Your task to perform on an android device: Is it going to rain today? Image 0: 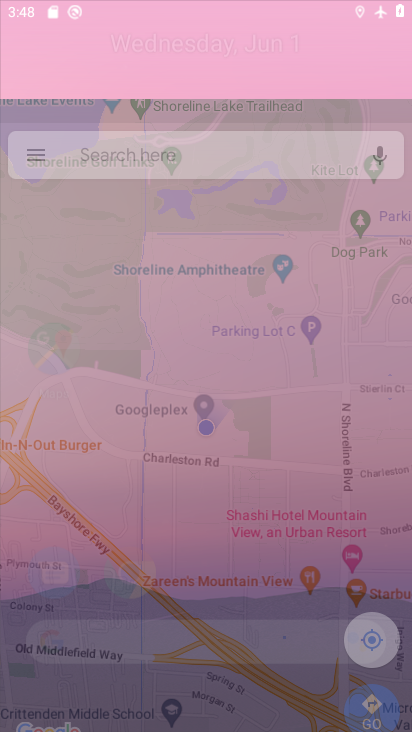
Step 0: click (133, 615)
Your task to perform on an android device: Is it going to rain today? Image 1: 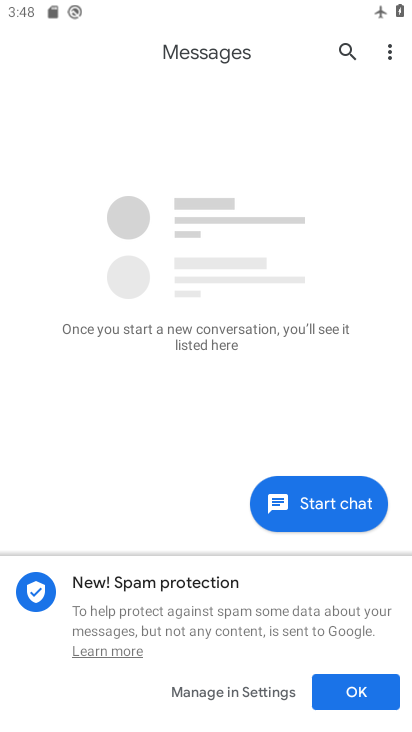
Step 1: press home button
Your task to perform on an android device: Is it going to rain today? Image 2: 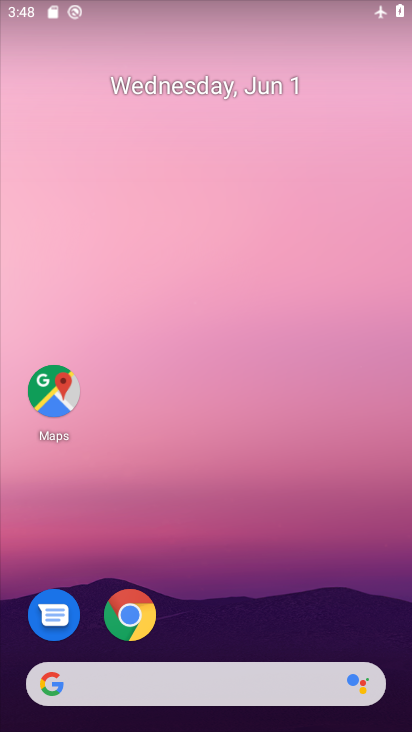
Step 2: drag from (238, 575) to (302, 89)
Your task to perform on an android device: Is it going to rain today? Image 3: 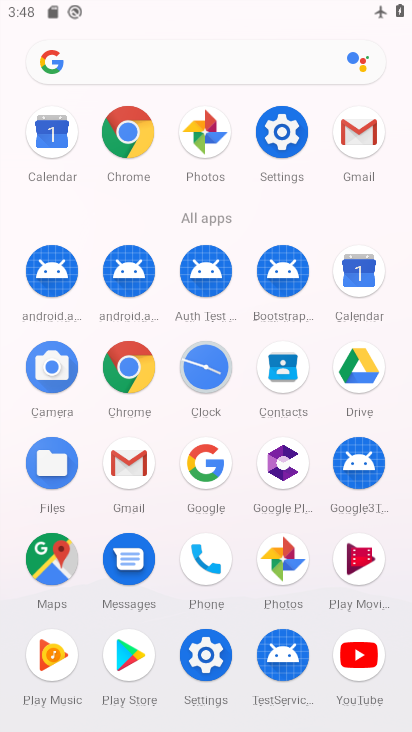
Step 3: click (127, 372)
Your task to perform on an android device: Is it going to rain today? Image 4: 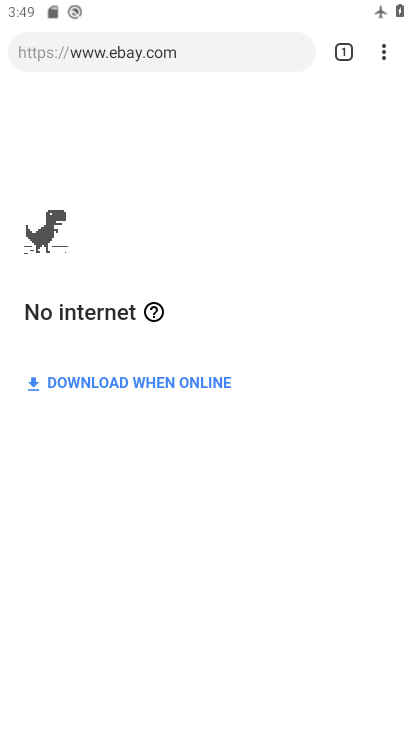
Step 4: click (226, 48)
Your task to perform on an android device: Is it going to rain today? Image 5: 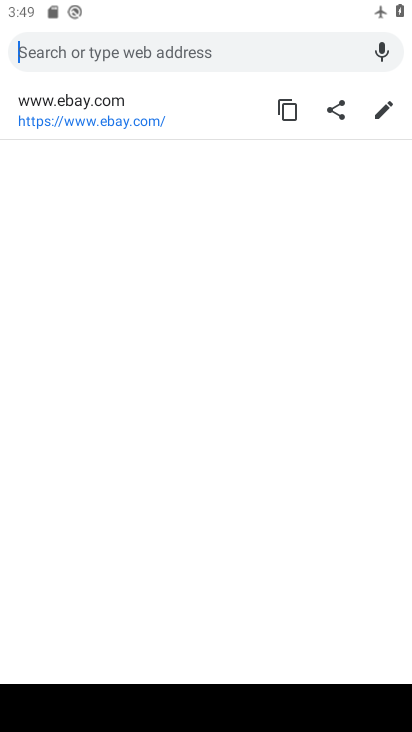
Step 5: type "weather"
Your task to perform on an android device: Is it going to rain today? Image 6: 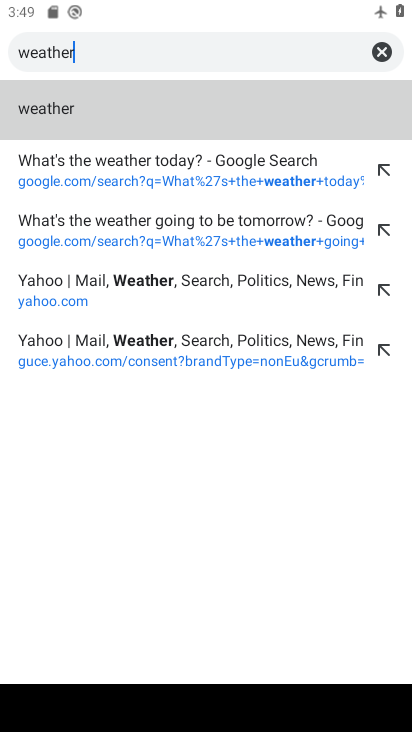
Step 6: click (73, 105)
Your task to perform on an android device: Is it going to rain today? Image 7: 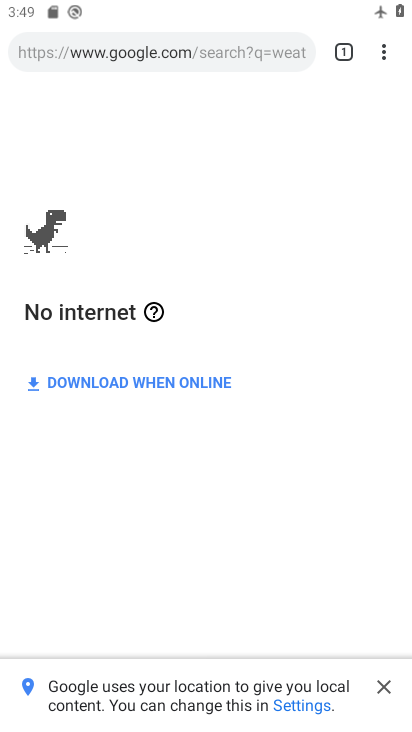
Step 7: task complete